Your task to perform on an android device: Is it going to rain today? Image 0: 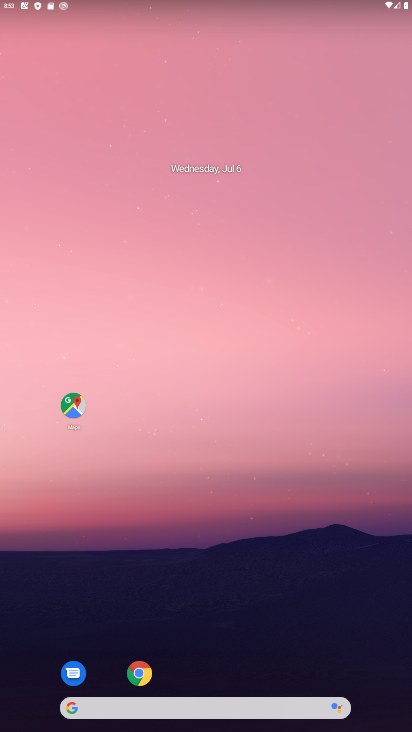
Step 0: drag from (247, 607) to (227, 224)
Your task to perform on an android device: Is it going to rain today? Image 1: 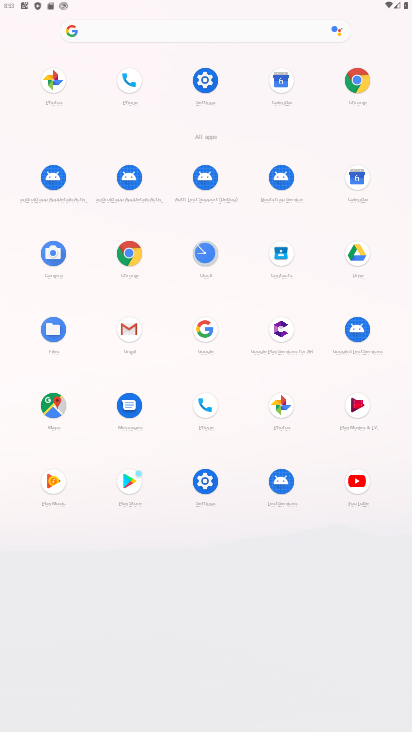
Step 1: click (121, 248)
Your task to perform on an android device: Is it going to rain today? Image 2: 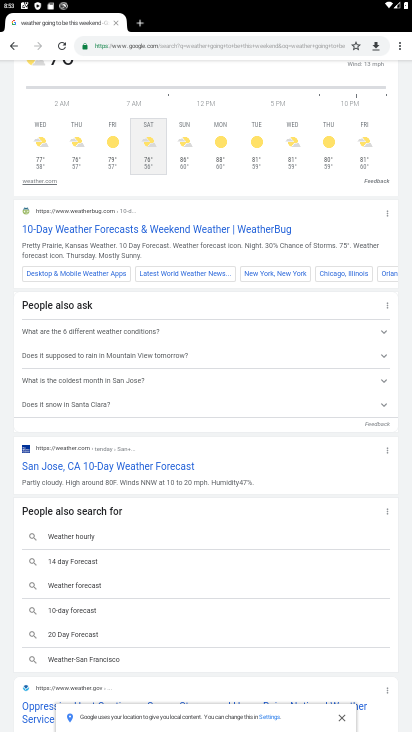
Step 2: click (138, 28)
Your task to perform on an android device: Is it going to rain today? Image 3: 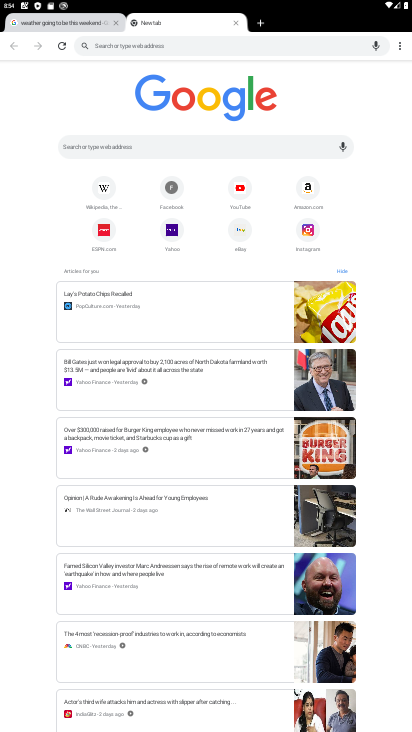
Step 3: click (195, 48)
Your task to perform on an android device: Is it going to rain today? Image 4: 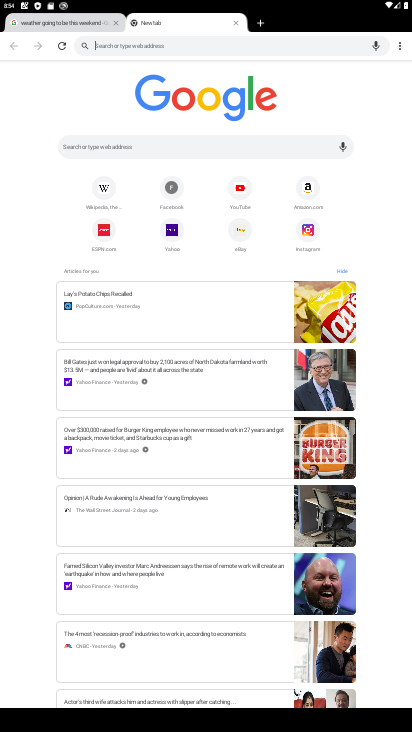
Step 4: type "Is it going to rain today "
Your task to perform on an android device: Is it going to rain today? Image 5: 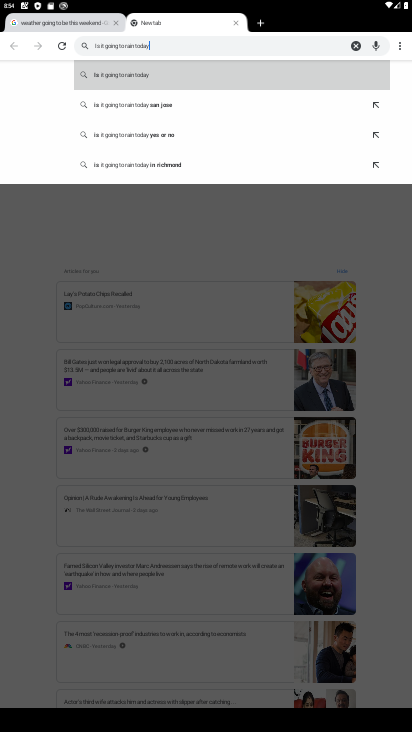
Step 5: click (145, 75)
Your task to perform on an android device: Is it going to rain today? Image 6: 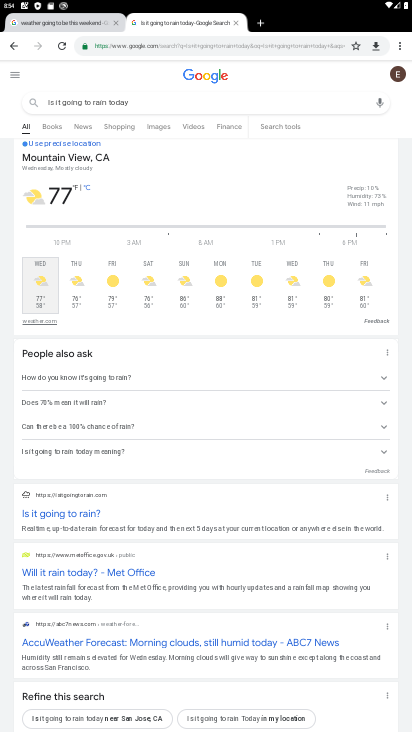
Step 6: task complete